Your task to perform on an android device: turn notification dots on Image 0: 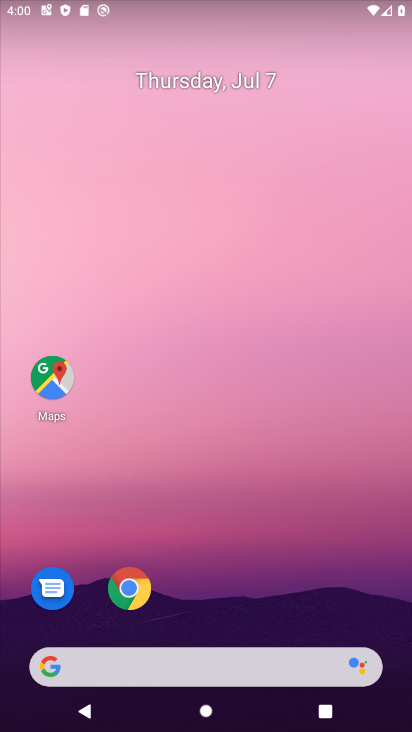
Step 0: drag from (271, 624) to (269, 304)
Your task to perform on an android device: turn notification dots on Image 1: 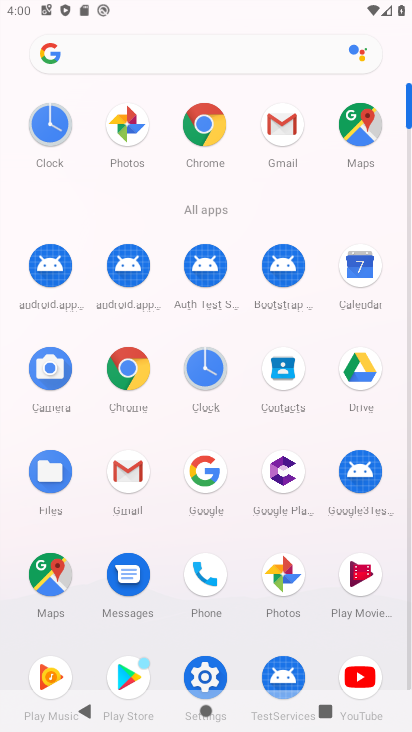
Step 1: click (215, 655)
Your task to perform on an android device: turn notification dots on Image 2: 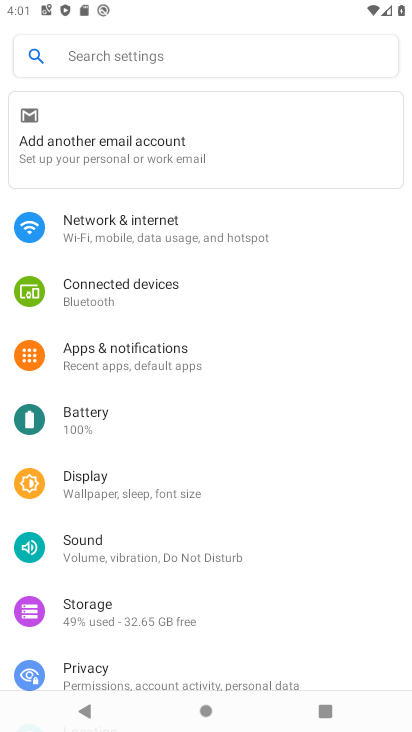
Step 2: click (164, 356)
Your task to perform on an android device: turn notification dots on Image 3: 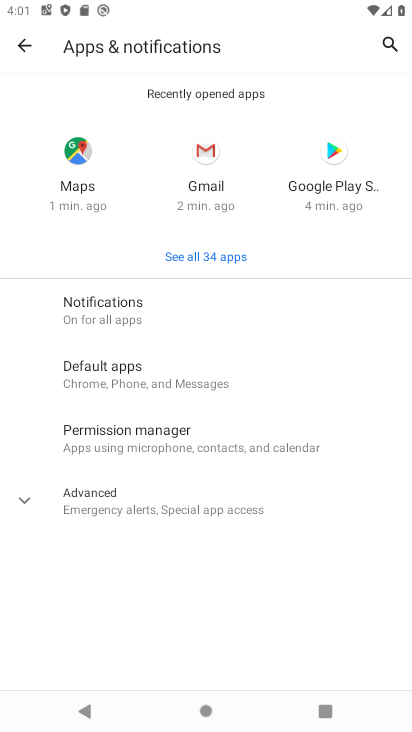
Step 3: click (93, 505)
Your task to perform on an android device: turn notification dots on Image 4: 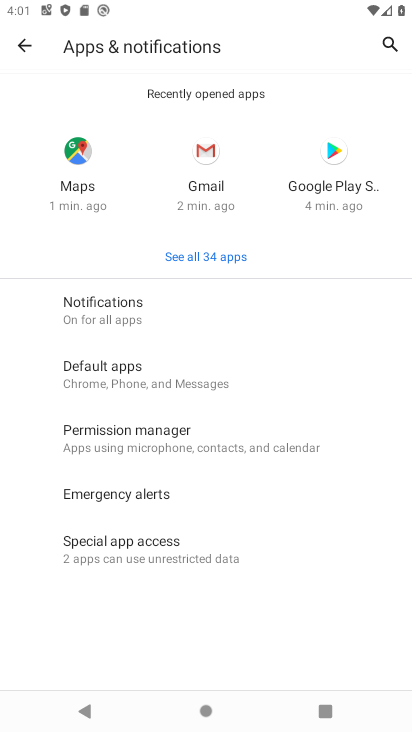
Step 4: drag from (316, 566) to (251, 226)
Your task to perform on an android device: turn notification dots on Image 5: 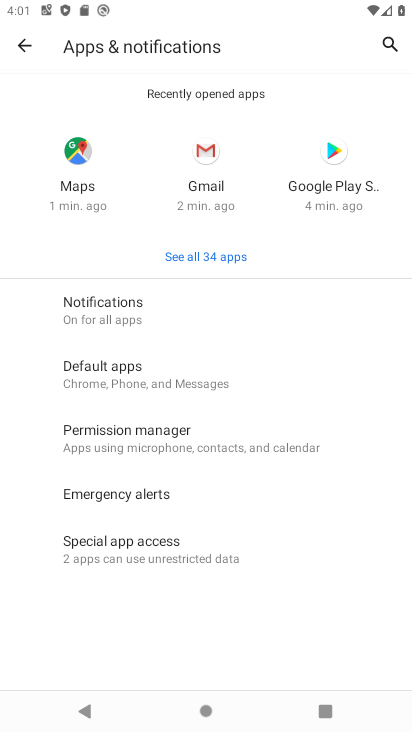
Step 5: click (80, 319)
Your task to perform on an android device: turn notification dots on Image 6: 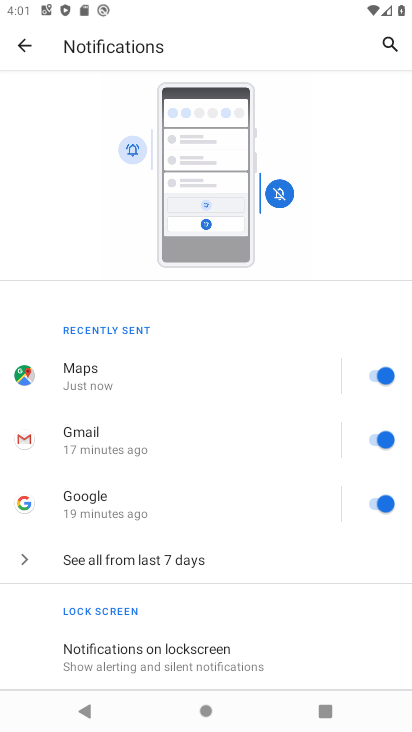
Step 6: drag from (305, 592) to (298, 220)
Your task to perform on an android device: turn notification dots on Image 7: 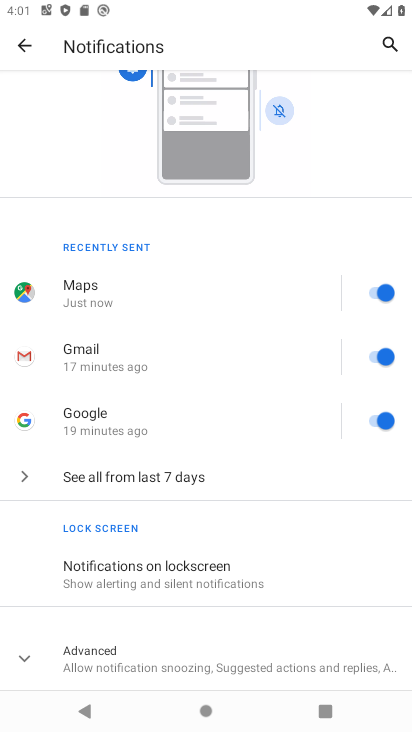
Step 7: click (76, 663)
Your task to perform on an android device: turn notification dots on Image 8: 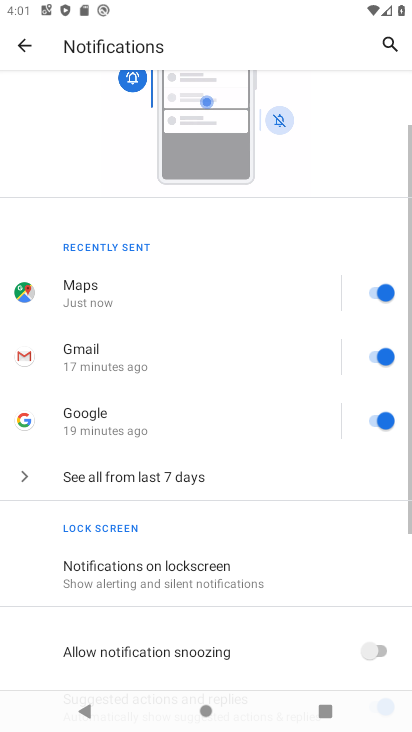
Step 8: task complete